Your task to perform on an android device: Open calendar and show me the second week of next month Image 0: 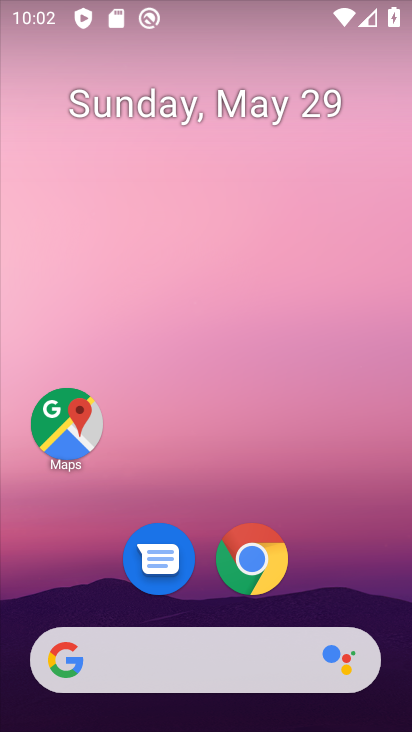
Step 0: drag from (207, 601) to (383, 4)
Your task to perform on an android device: Open calendar and show me the second week of next month Image 1: 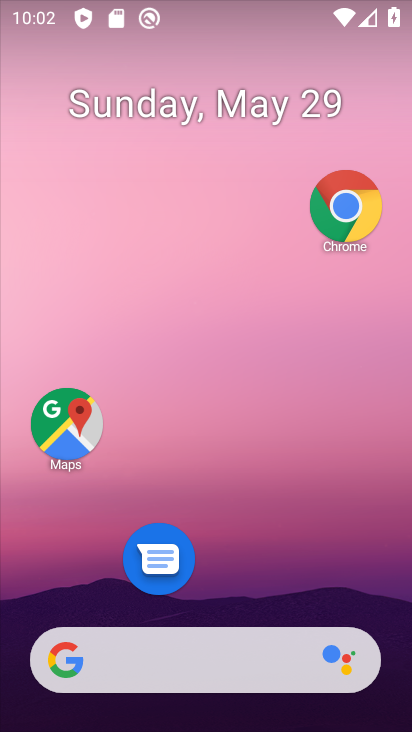
Step 1: drag from (288, 495) to (115, 5)
Your task to perform on an android device: Open calendar and show me the second week of next month Image 2: 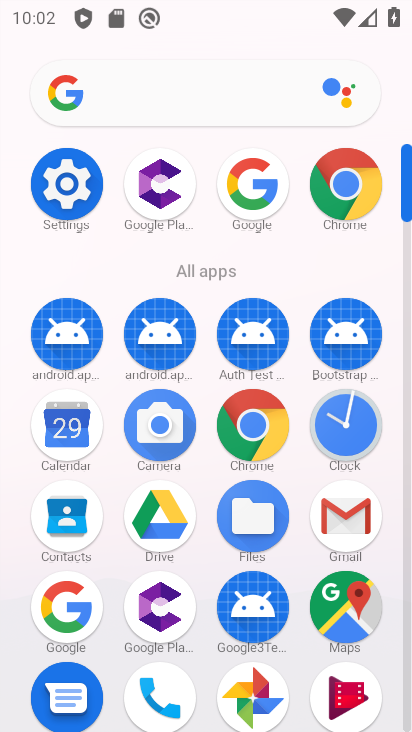
Step 2: click (65, 419)
Your task to perform on an android device: Open calendar and show me the second week of next month Image 3: 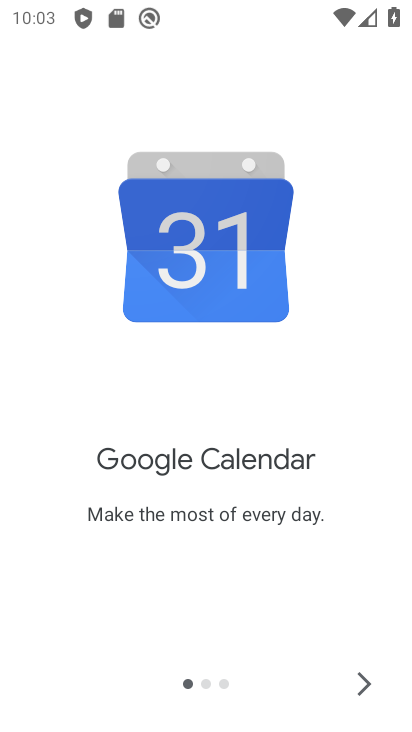
Step 3: click (368, 680)
Your task to perform on an android device: Open calendar and show me the second week of next month Image 4: 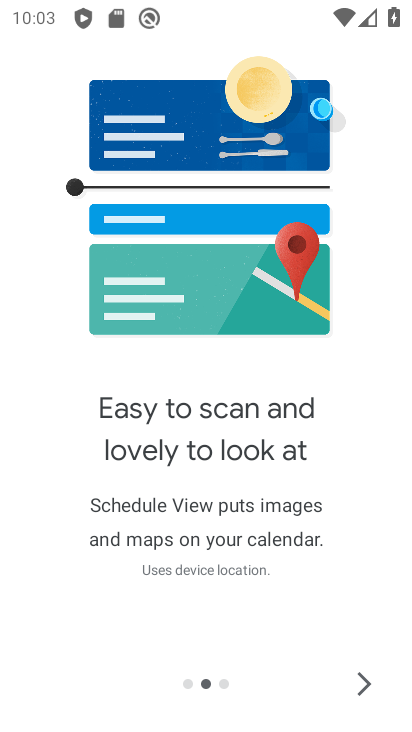
Step 4: click (368, 680)
Your task to perform on an android device: Open calendar and show me the second week of next month Image 5: 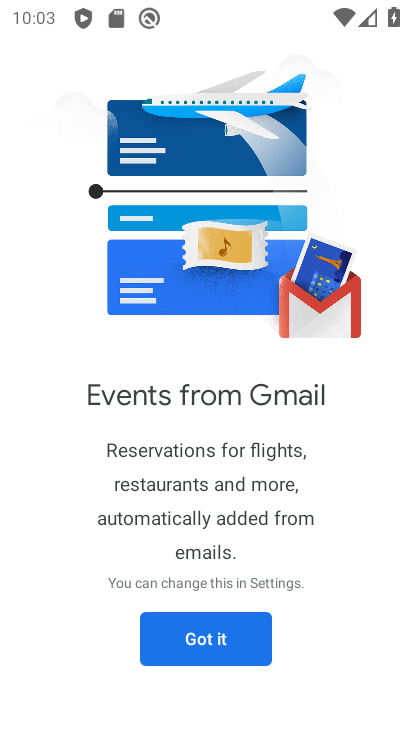
Step 5: click (227, 638)
Your task to perform on an android device: Open calendar and show me the second week of next month Image 6: 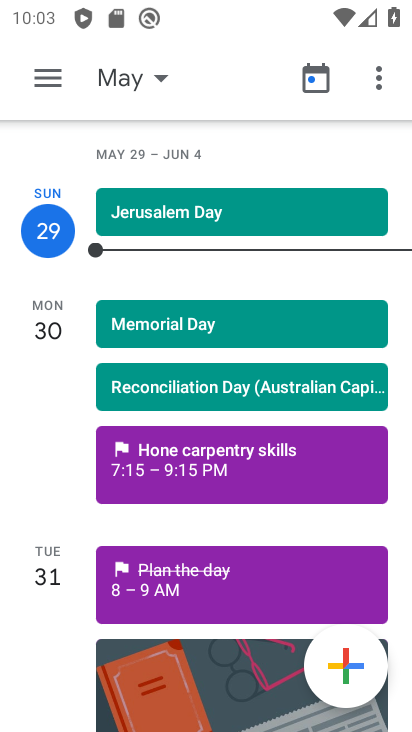
Step 6: click (116, 87)
Your task to perform on an android device: Open calendar and show me the second week of next month Image 7: 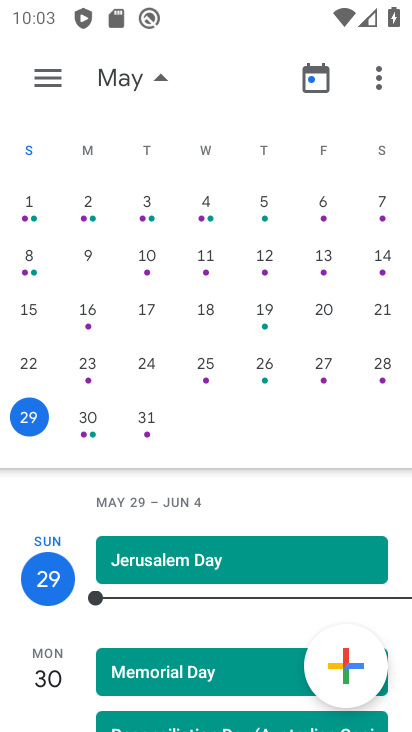
Step 7: drag from (346, 292) to (4, 328)
Your task to perform on an android device: Open calendar and show me the second week of next month Image 8: 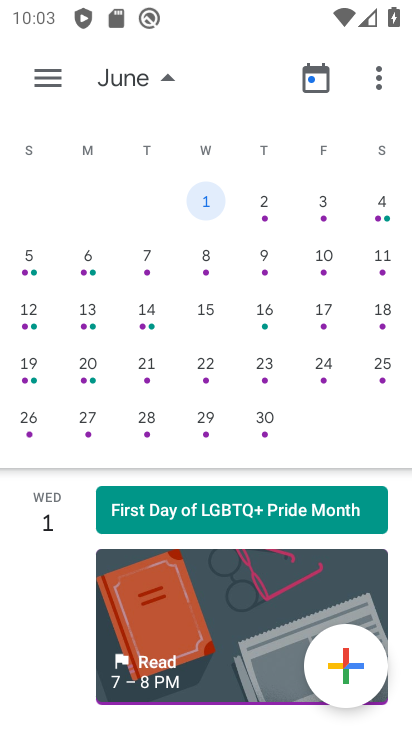
Step 8: click (25, 325)
Your task to perform on an android device: Open calendar and show me the second week of next month Image 9: 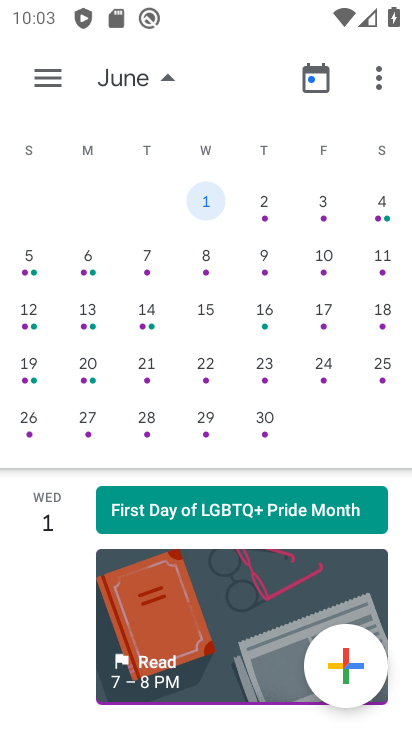
Step 9: click (34, 325)
Your task to perform on an android device: Open calendar and show me the second week of next month Image 10: 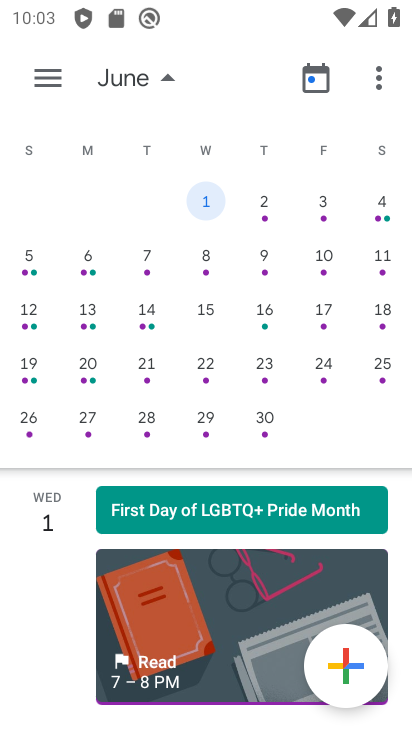
Step 10: click (34, 325)
Your task to perform on an android device: Open calendar and show me the second week of next month Image 11: 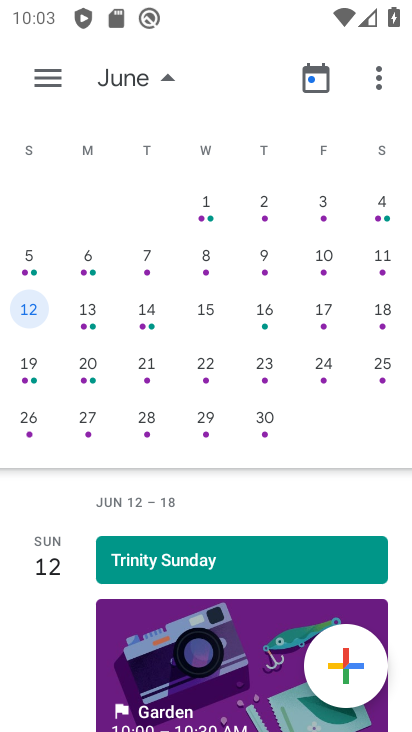
Step 11: click (46, 73)
Your task to perform on an android device: Open calendar and show me the second week of next month Image 12: 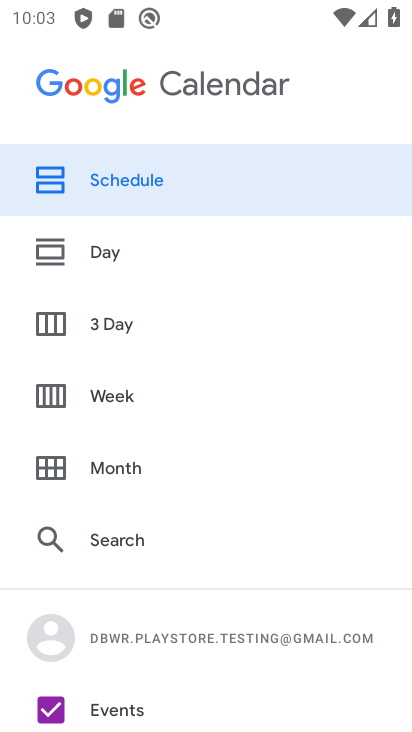
Step 12: click (131, 398)
Your task to perform on an android device: Open calendar and show me the second week of next month Image 13: 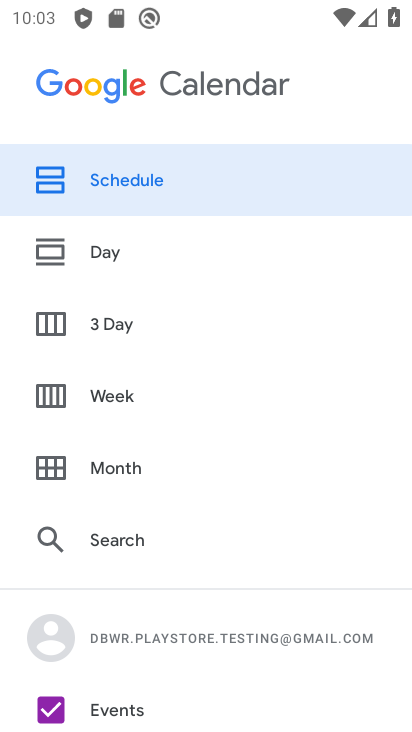
Step 13: click (118, 404)
Your task to perform on an android device: Open calendar and show me the second week of next month Image 14: 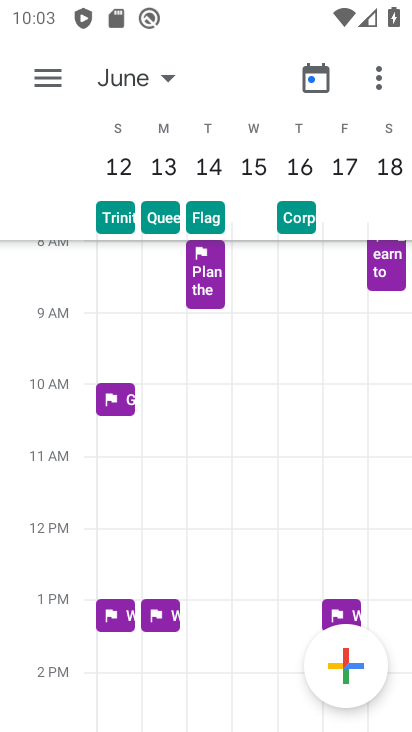
Step 14: task complete